Your task to perform on an android device: open a bookmark in the chrome app Image 0: 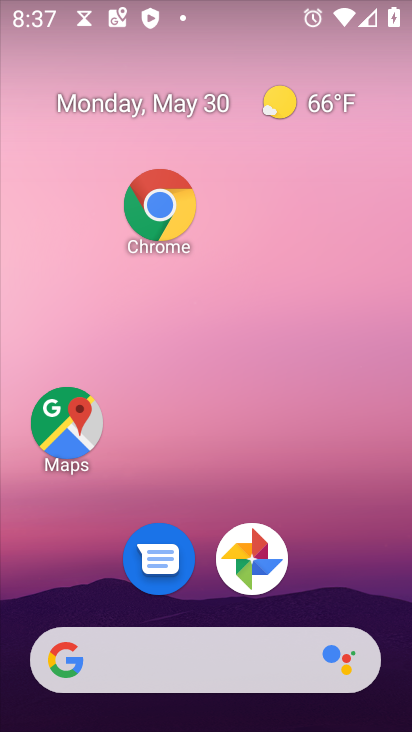
Step 0: drag from (244, 706) to (154, 93)
Your task to perform on an android device: open a bookmark in the chrome app Image 1: 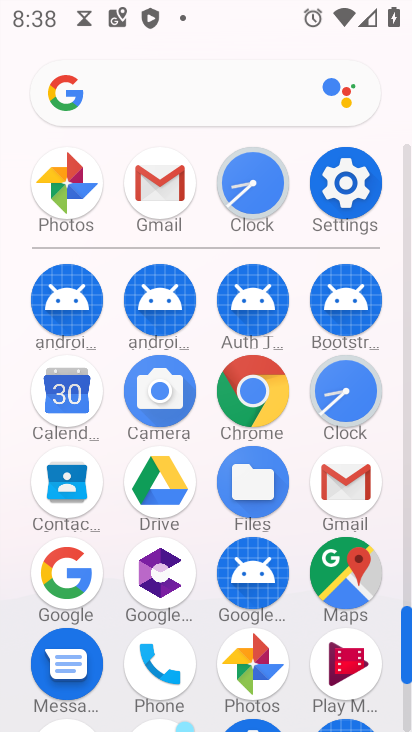
Step 1: click (234, 398)
Your task to perform on an android device: open a bookmark in the chrome app Image 2: 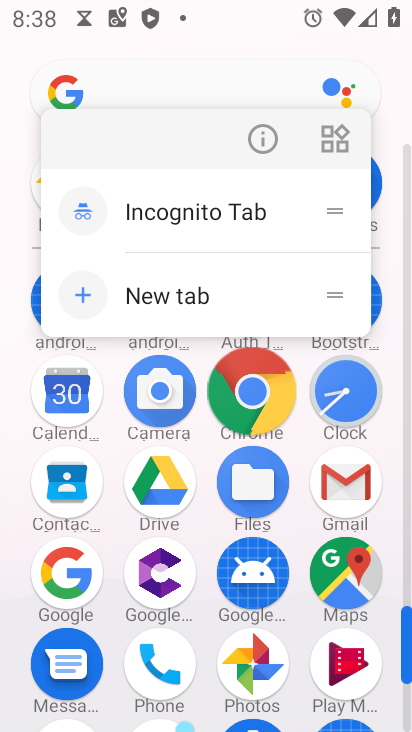
Step 2: click (241, 399)
Your task to perform on an android device: open a bookmark in the chrome app Image 3: 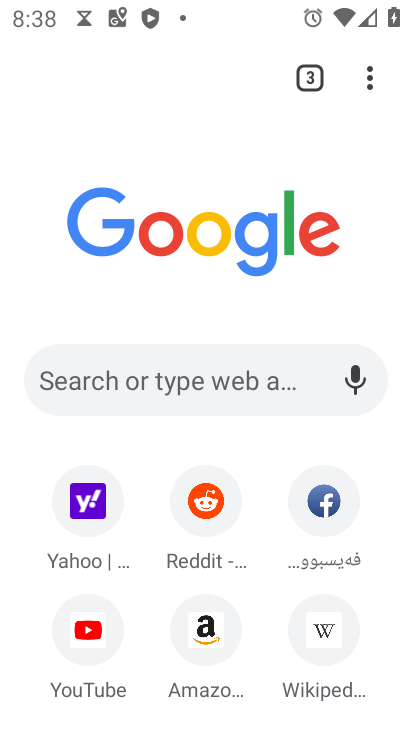
Step 3: click (371, 81)
Your task to perform on an android device: open a bookmark in the chrome app Image 4: 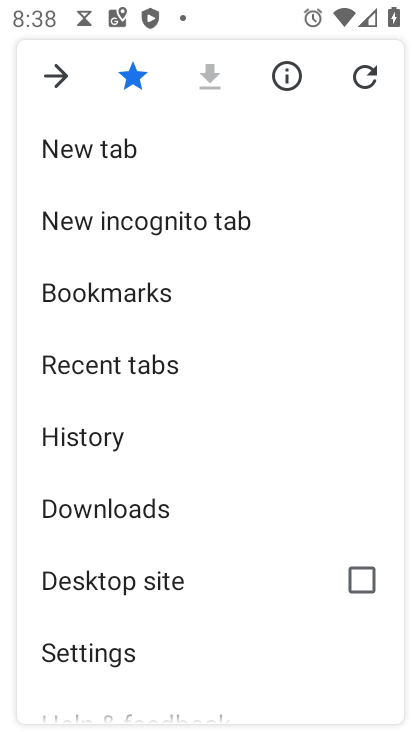
Step 4: click (108, 292)
Your task to perform on an android device: open a bookmark in the chrome app Image 5: 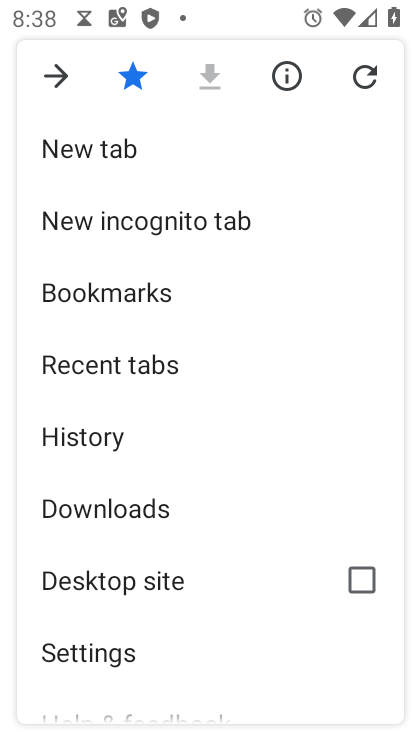
Step 5: click (108, 293)
Your task to perform on an android device: open a bookmark in the chrome app Image 6: 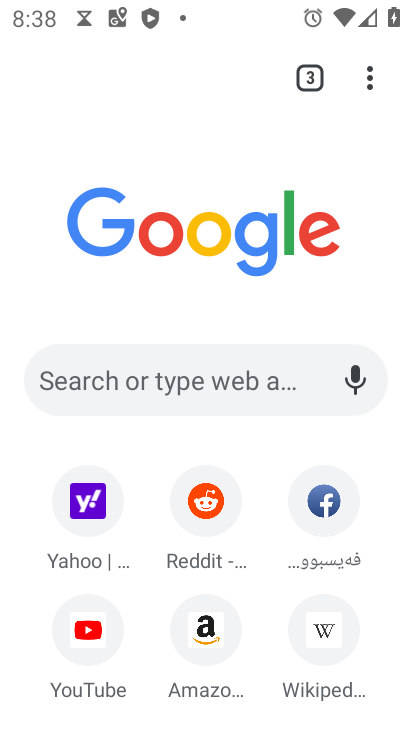
Step 6: click (109, 293)
Your task to perform on an android device: open a bookmark in the chrome app Image 7: 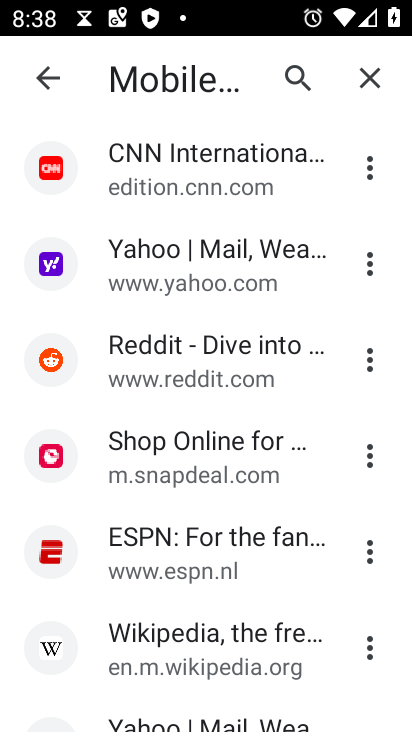
Step 7: click (34, 76)
Your task to perform on an android device: open a bookmark in the chrome app Image 8: 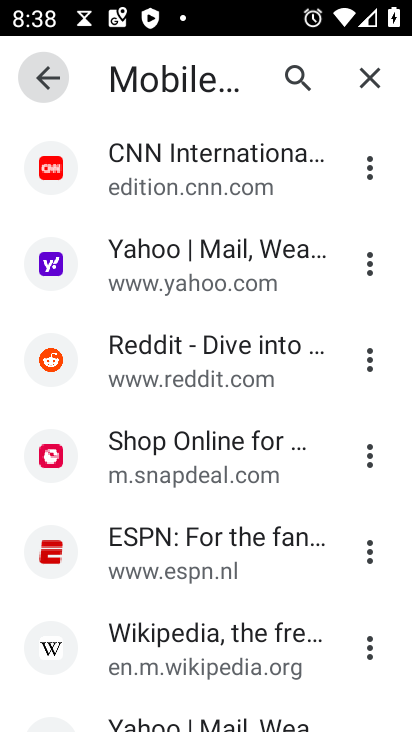
Step 8: click (37, 77)
Your task to perform on an android device: open a bookmark in the chrome app Image 9: 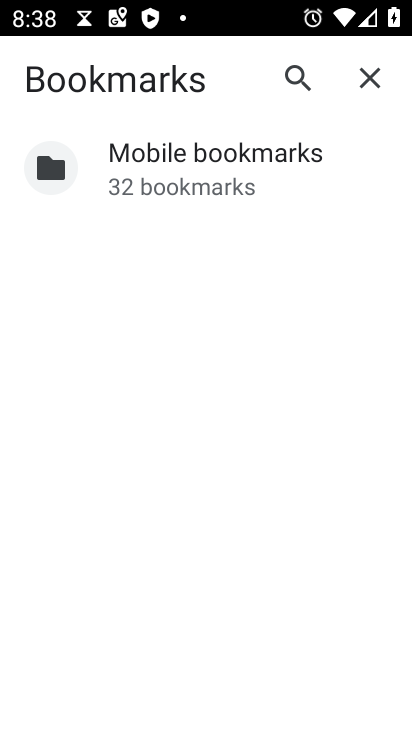
Step 9: click (38, 78)
Your task to perform on an android device: open a bookmark in the chrome app Image 10: 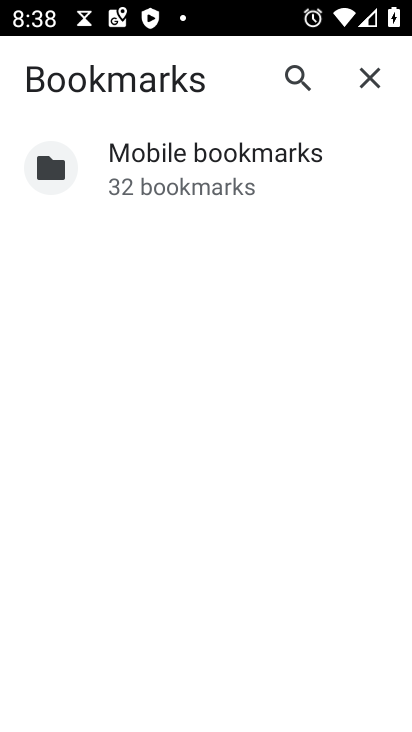
Step 10: click (357, 87)
Your task to perform on an android device: open a bookmark in the chrome app Image 11: 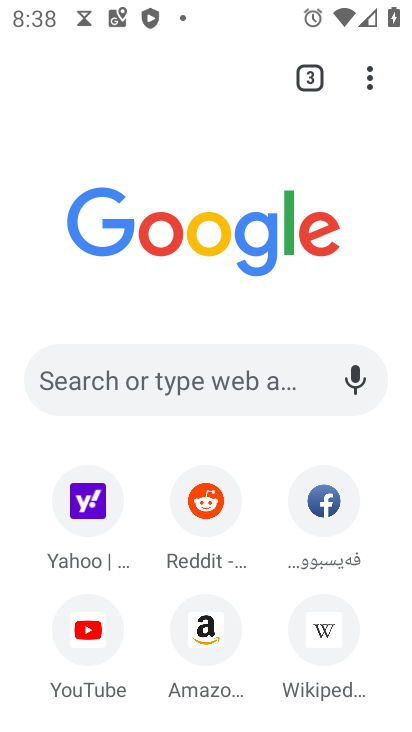
Step 11: click (355, 78)
Your task to perform on an android device: open a bookmark in the chrome app Image 12: 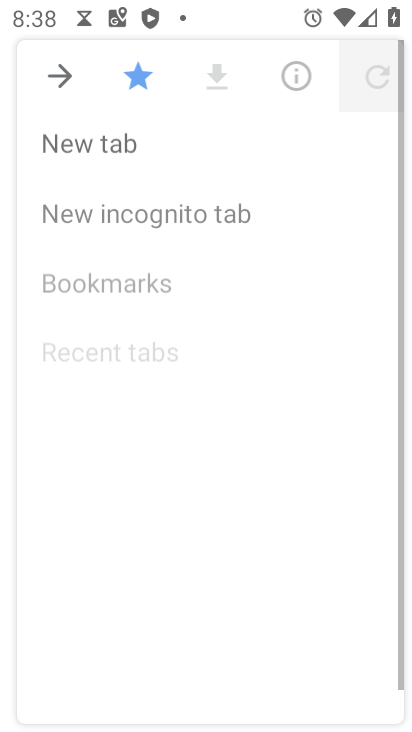
Step 12: click (375, 85)
Your task to perform on an android device: open a bookmark in the chrome app Image 13: 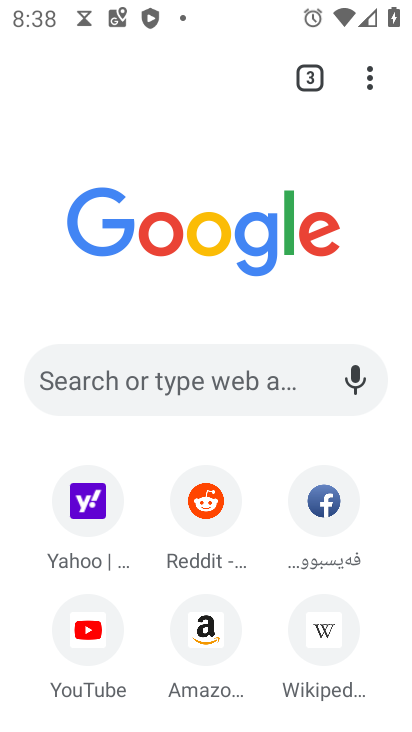
Step 13: drag from (367, 85) to (107, 290)
Your task to perform on an android device: open a bookmark in the chrome app Image 14: 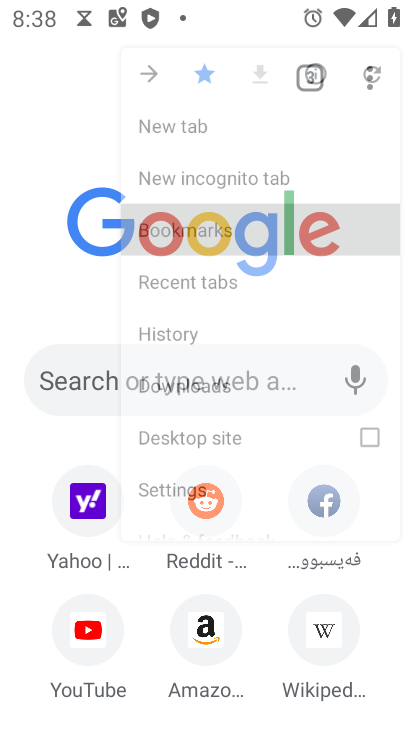
Step 14: click (106, 291)
Your task to perform on an android device: open a bookmark in the chrome app Image 15: 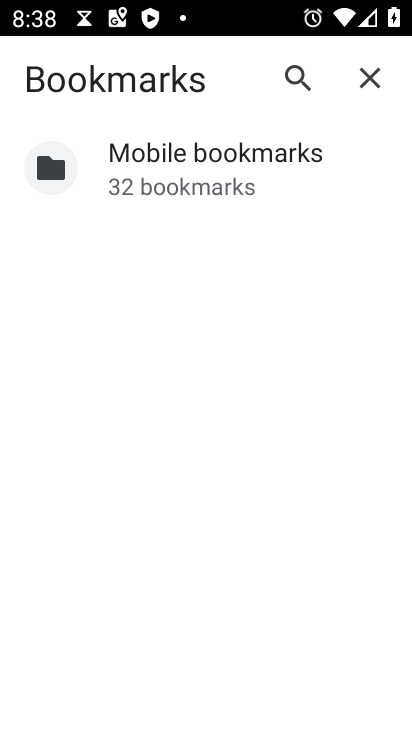
Step 15: task complete